Your task to perform on an android device: turn on improve location accuracy Image 0: 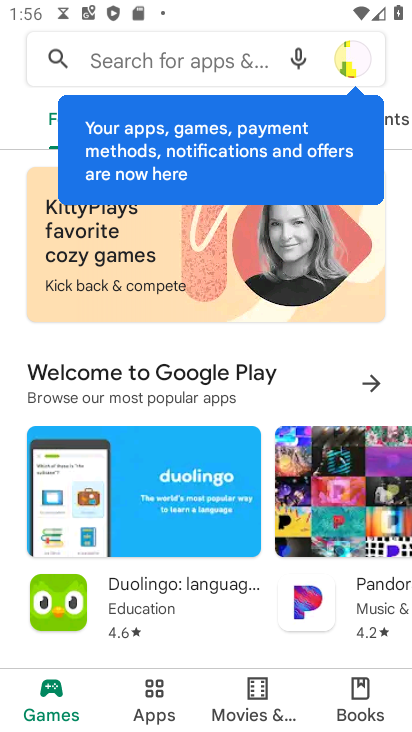
Step 0: press back button
Your task to perform on an android device: turn on improve location accuracy Image 1: 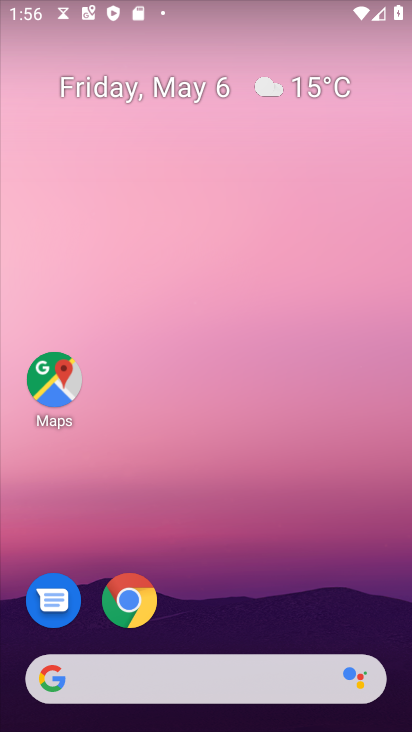
Step 1: drag from (235, 585) to (150, 24)
Your task to perform on an android device: turn on improve location accuracy Image 2: 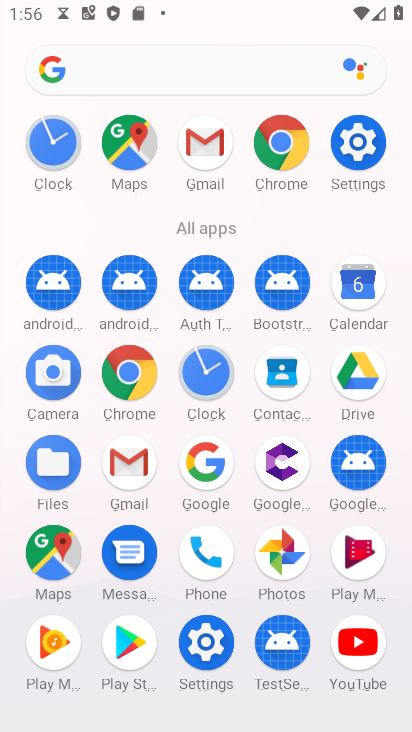
Step 2: drag from (13, 511) to (7, 192)
Your task to perform on an android device: turn on improve location accuracy Image 3: 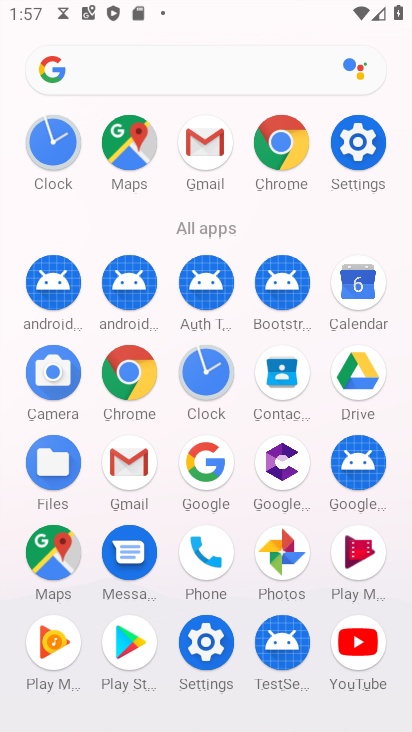
Step 3: click (207, 639)
Your task to perform on an android device: turn on improve location accuracy Image 4: 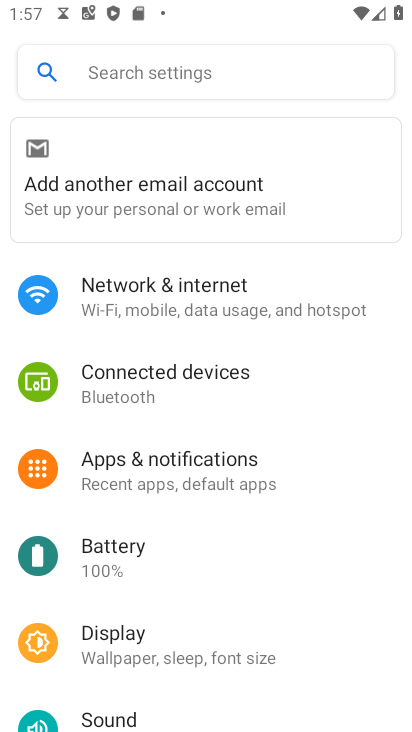
Step 4: drag from (305, 546) to (299, 140)
Your task to perform on an android device: turn on improve location accuracy Image 5: 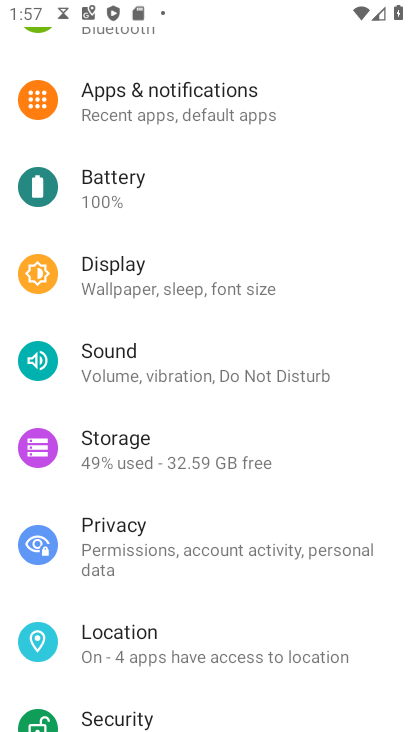
Step 5: click (149, 637)
Your task to perform on an android device: turn on improve location accuracy Image 6: 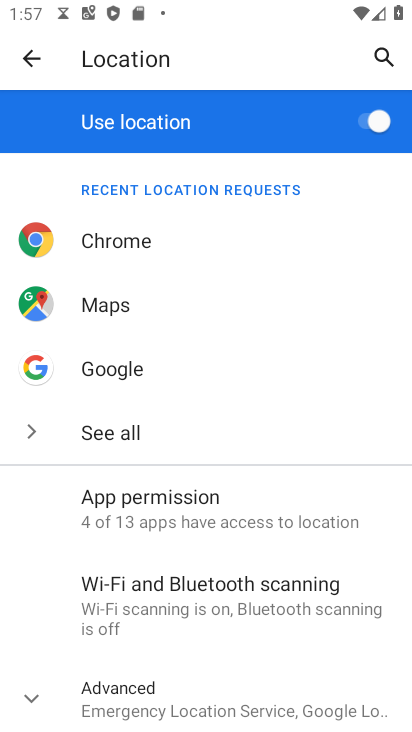
Step 6: click (79, 683)
Your task to perform on an android device: turn on improve location accuracy Image 7: 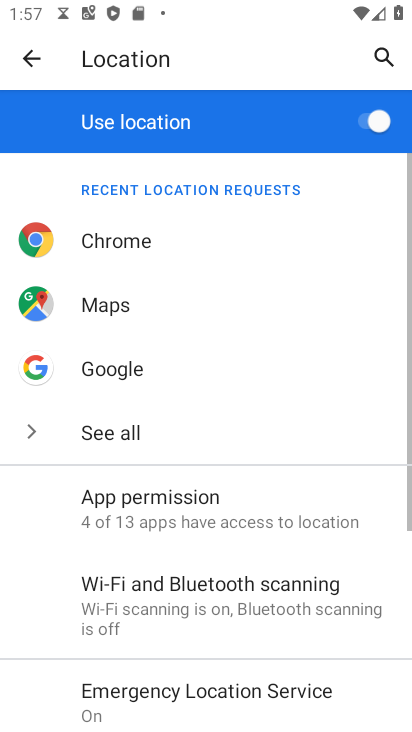
Step 7: drag from (219, 633) to (256, 296)
Your task to perform on an android device: turn on improve location accuracy Image 8: 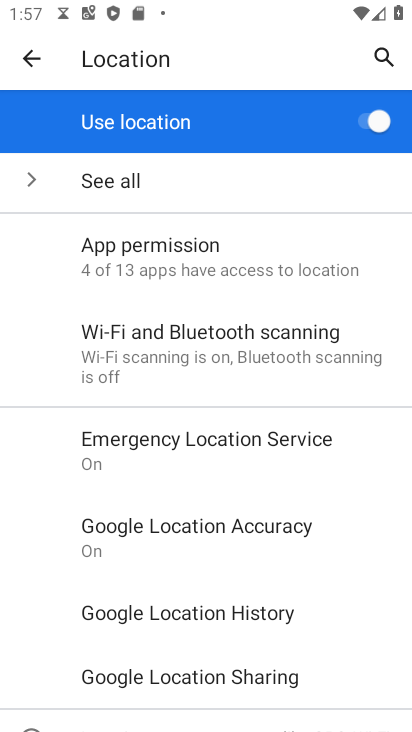
Step 8: click (221, 537)
Your task to perform on an android device: turn on improve location accuracy Image 9: 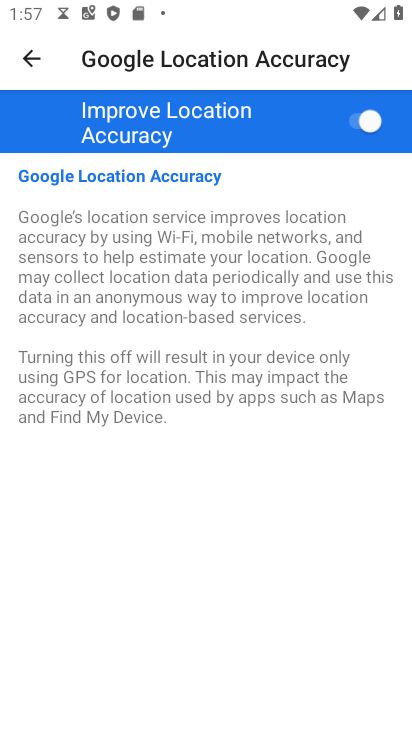
Step 9: task complete